Your task to perform on an android device: Open calendar and show me the second week of next month Image 0: 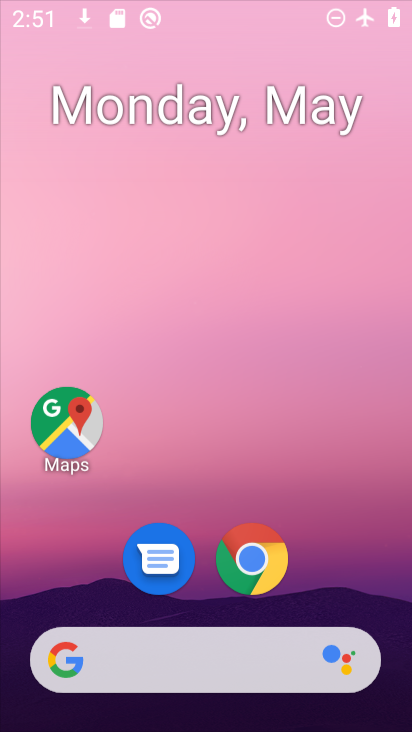
Step 0: click (402, 592)
Your task to perform on an android device: Open calendar and show me the second week of next month Image 1: 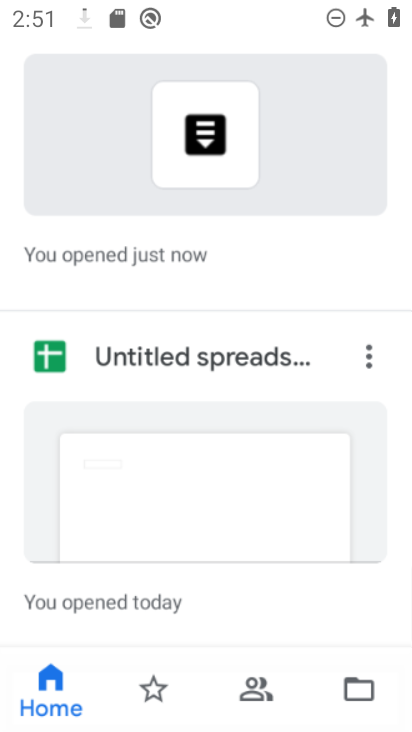
Step 1: drag from (181, 608) to (283, 3)
Your task to perform on an android device: Open calendar and show me the second week of next month Image 2: 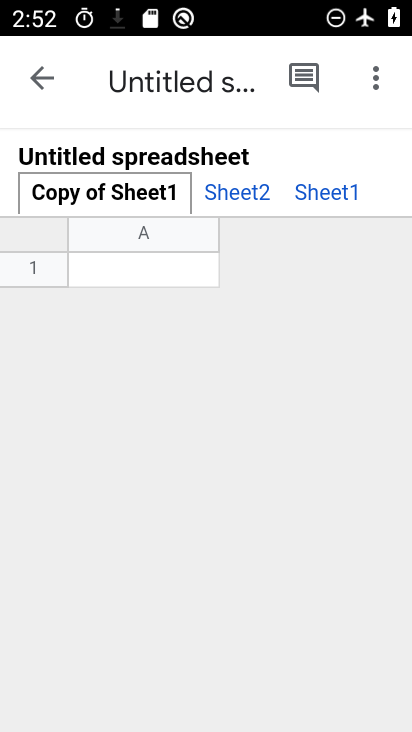
Step 2: drag from (186, 494) to (206, 150)
Your task to perform on an android device: Open calendar and show me the second week of next month Image 3: 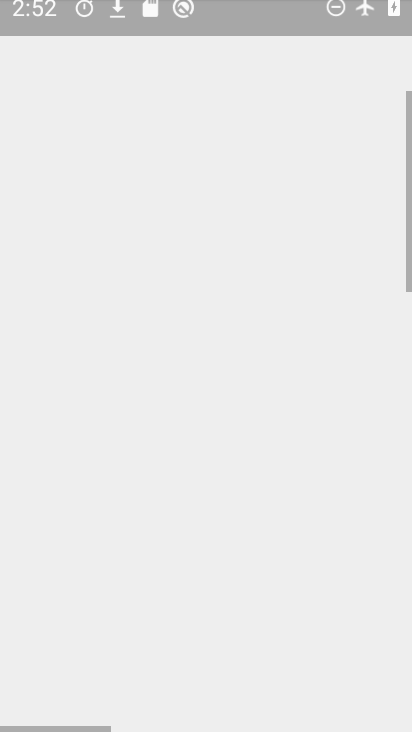
Step 3: drag from (188, 517) to (197, 259)
Your task to perform on an android device: Open calendar and show me the second week of next month Image 4: 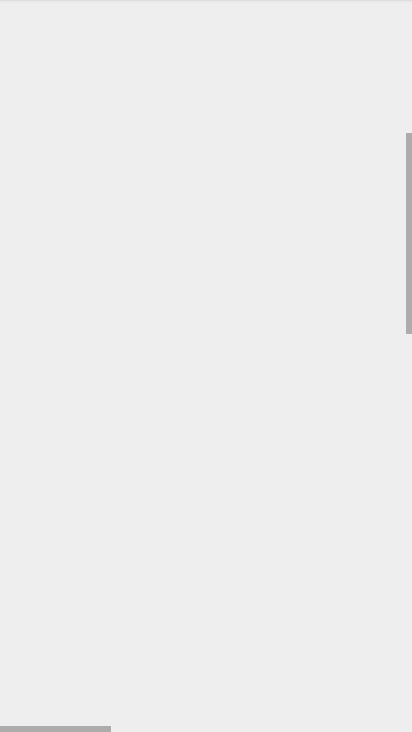
Step 4: drag from (187, 215) to (244, 688)
Your task to perform on an android device: Open calendar and show me the second week of next month Image 5: 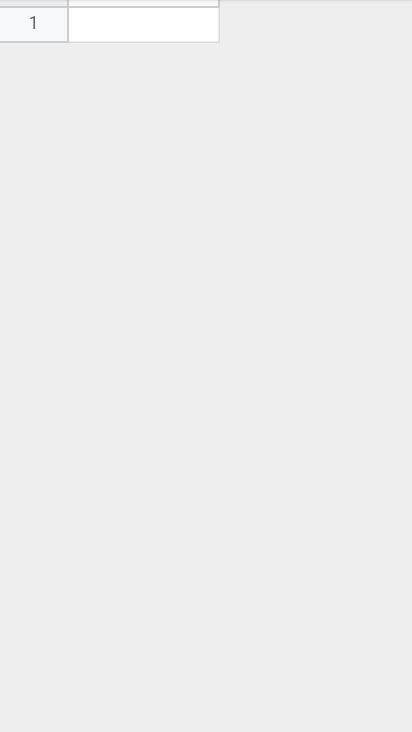
Step 5: drag from (181, 646) to (270, 242)
Your task to perform on an android device: Open calendar and show me the second week of next month Image 6: 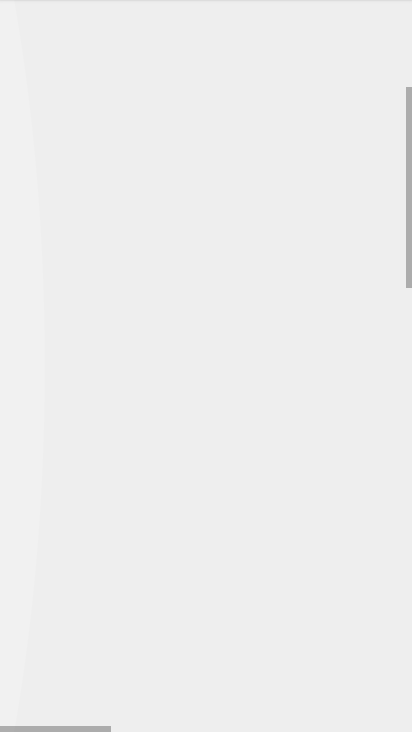
Step 6: drag from (275, 194) to (254, 706)
Your task to perform on an android device: Open calendar and show me the second week of next month Image 7: 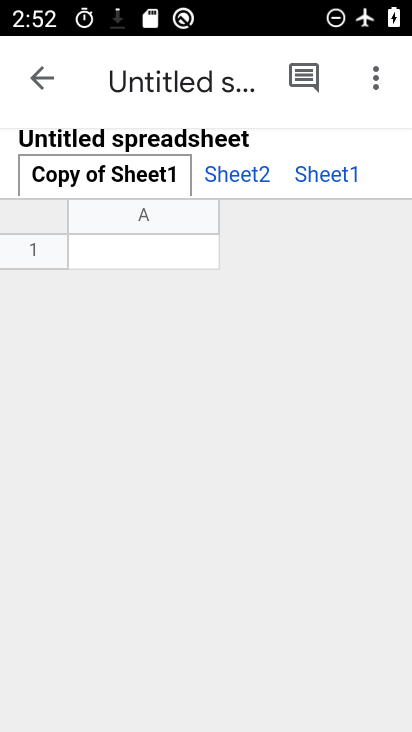
Step 7: press home button
Your task to perform on an android device: Open calendar and show me the second week of next month Image 8: 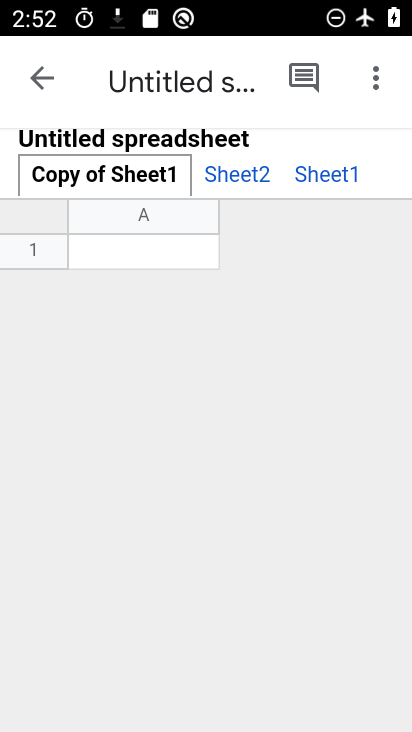
Step 8: press home button
Your task to perform on an android device: Open calendar and show me the second week of next month Image 9: 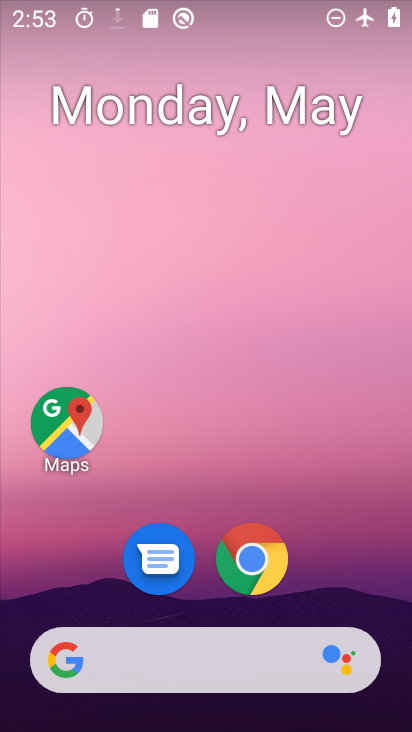
Step 9: drag from (180, 617) to (245, 279)
Your task to perform on an android device: Open calendar and show me the second week of next month Image 10: 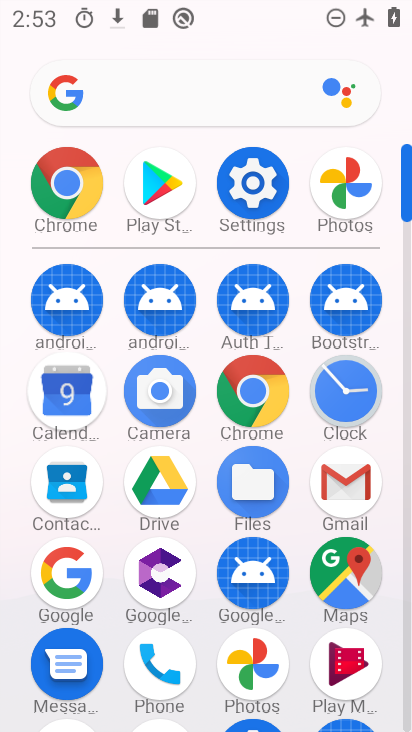
Step 10: drag from (213, 639) to (241, 198)
Your task to perform on an android device: Open calendar and show me the second week of next month Image 11: 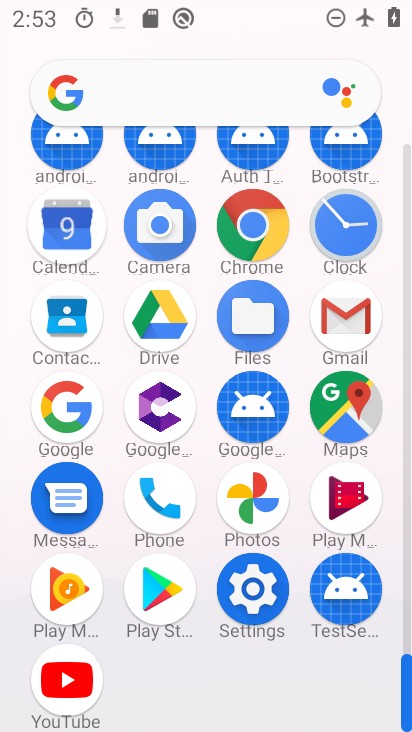
Step 11: drag from (206, 624) to (216, 312)
Your task to perform on an android device: Open calendar and show me the second week of next month Image 12: 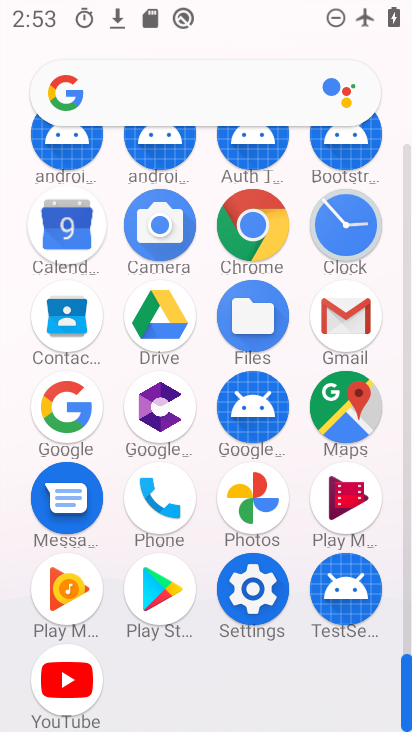
Step 12: drag from (200, 667) to (214, 442)
Your task to perform on an android device: Open calendar and show me the second week of next month Image 13: 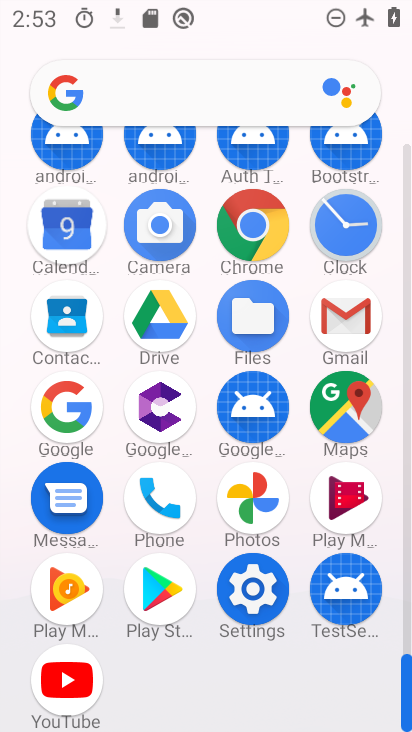
Step 13: drag from (198, 686) to (205, 338)
Your task to perform on an android device: Open calendar and show me the second week of next month Image 14: 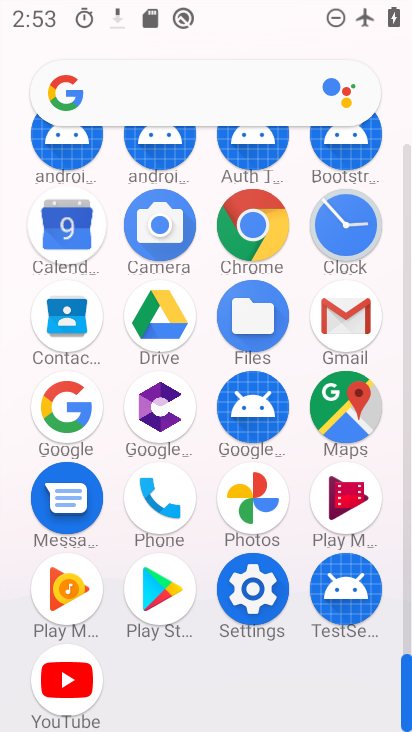
Step 14: click (58, 228)
Your task to perform on an android device: Open calendar and show me the second week of next month Image 15: 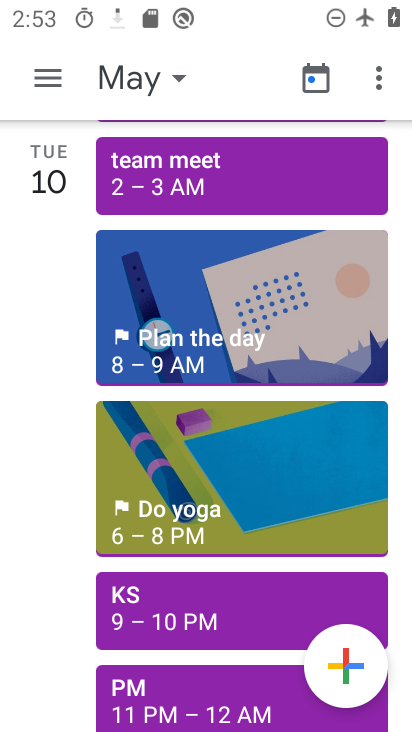
Step 15: click (165, 91)
Your task to perform on an android device: Open calendar and show me the second week of next month Image 16: 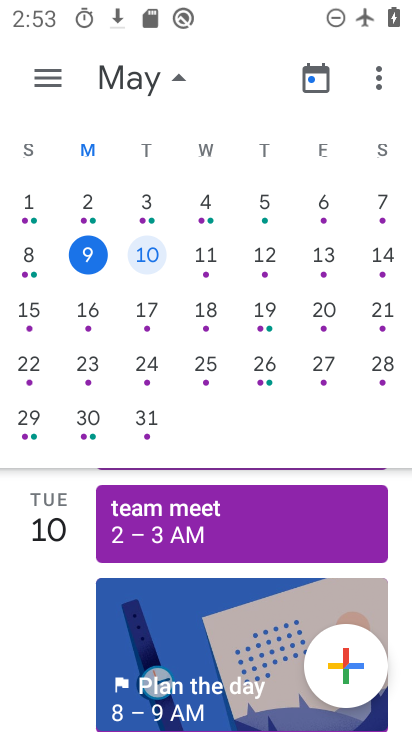
Step 16: drag from (361, 274) to (17, 336)
Your task to perform on an android device: Open calendar and show me the second week of next month Image 17: 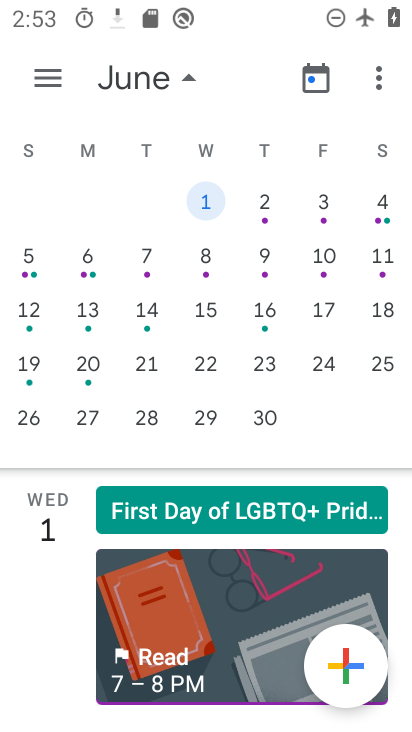
Step 17: click (255, 250)
Your task to perform on an android device: Open calendar and show me the second week of next month Image 18: 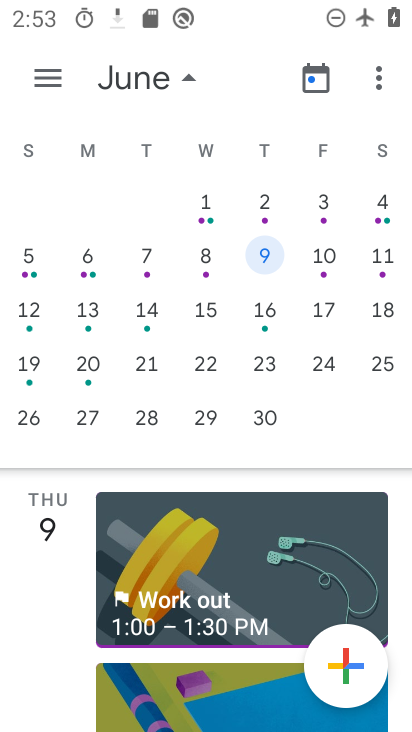
Step 18: task complete